Your task to perform on an android device: Open calendar and show me the fourth week of next month Image 0: 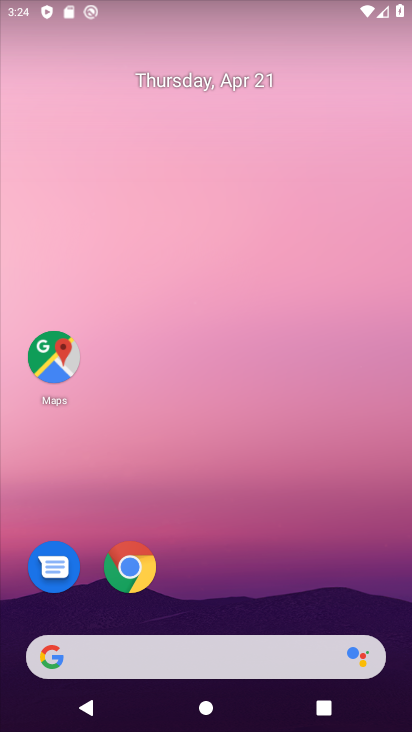
Step 0: drag from (215, 603) to (211, 1)
Your task to perform on an android device: Open calendar and show me the fourth week of next month Image 1: 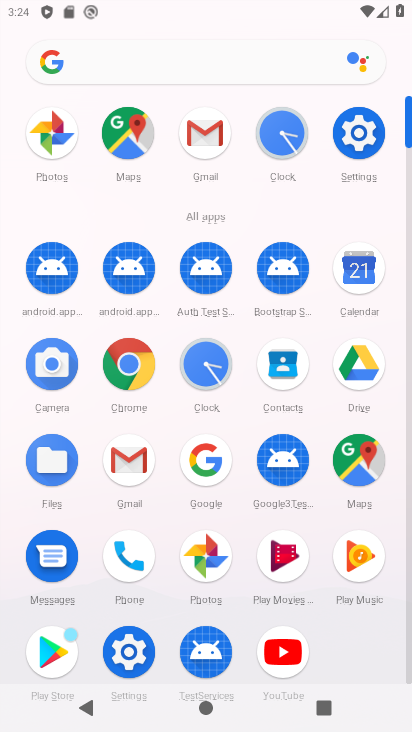
Step 1: click (360, 261)
Your task to perform on an android device: Open calendar and show me the fourth week of next month Image 2: 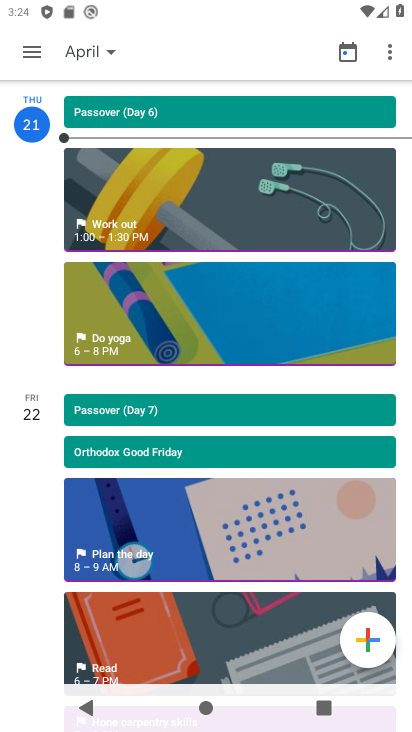
Step 2: click (27, 51)
Your task to perform on an android device: Open calendar and show me the fourth week of next month Image 3: 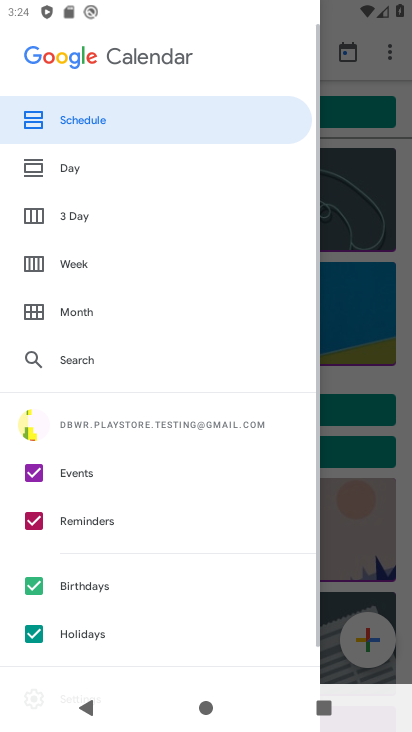
Step 3: click (53, 259)
Your task to perform on an android device: Open calendar and show me the fourth week of next month Image 4: 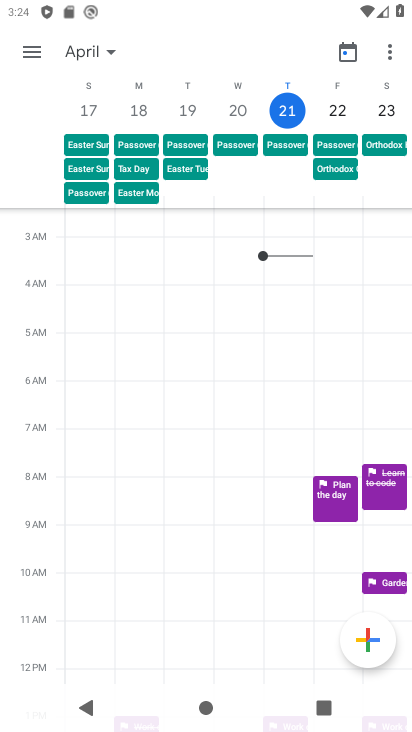
Step 4: drag from (372, 105) to (70, 102)
Your task to perform on an android device: Open calendar and show me the fourth week of next month Image 5: 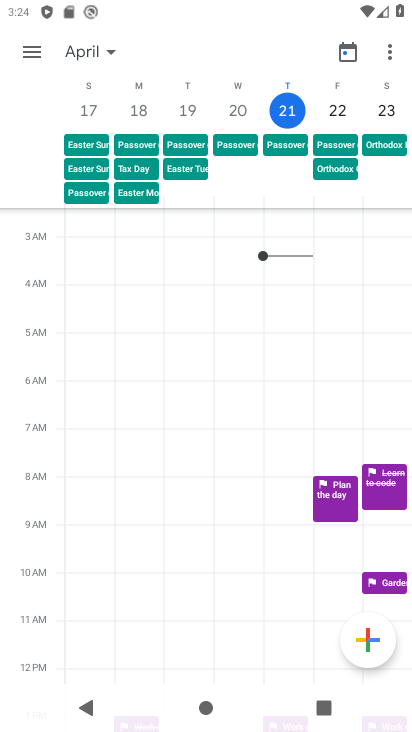
Step 5: drag from (381, 108) to (67, 111)
Your task to perform on an android device: Open calendar and show me the fourth week of next month Image 6: 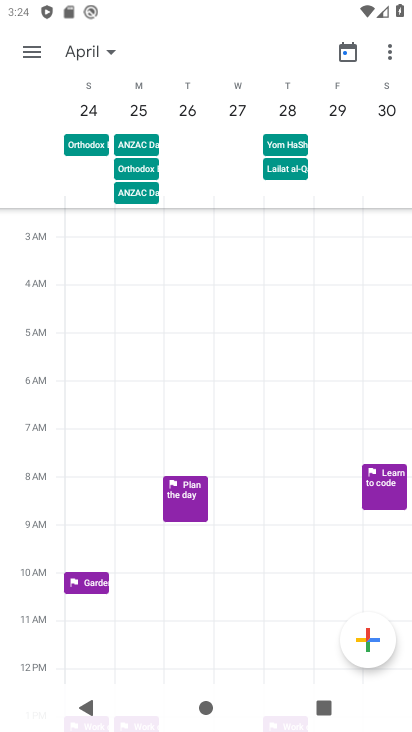
Step 6: drag from (386, 111) to (8, 111)
Your task to perform on an android device: Open calendar and show me the fourth week of next month Image 7: 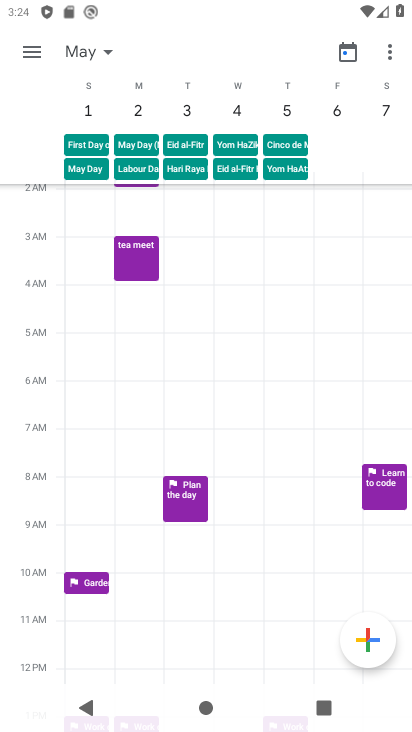
Step 7: drag from (385, 107) to (62, 116)
Your task to perform on an android device: Open calendar and show me the fourth week of next month Image 8: 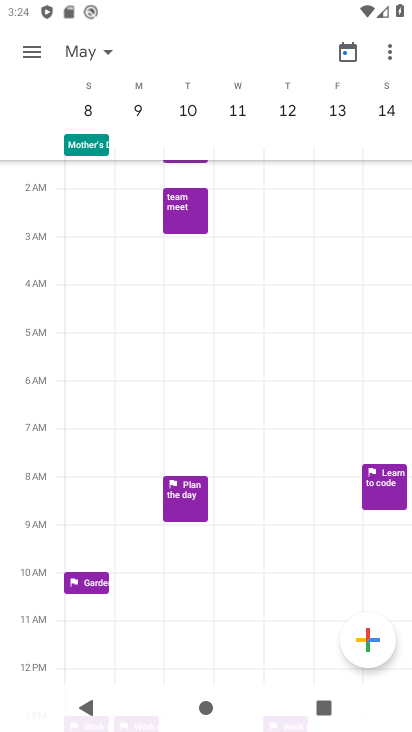
Step 8: drag from (389, 110) to (73, 126)
Your task to perform on an android device: Open calendar and show me the fourth week of next month Image 9: 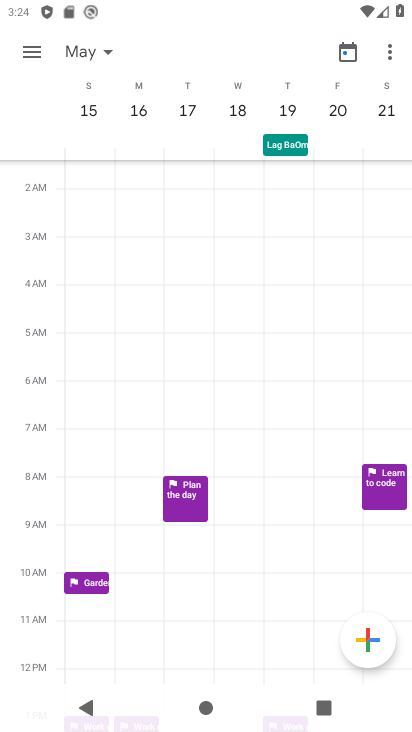
Step 9: drag from (387, 117) to (55, 129)
Your task to perform on an android device: Open calendar and show me the fourth week of next month Image 10: 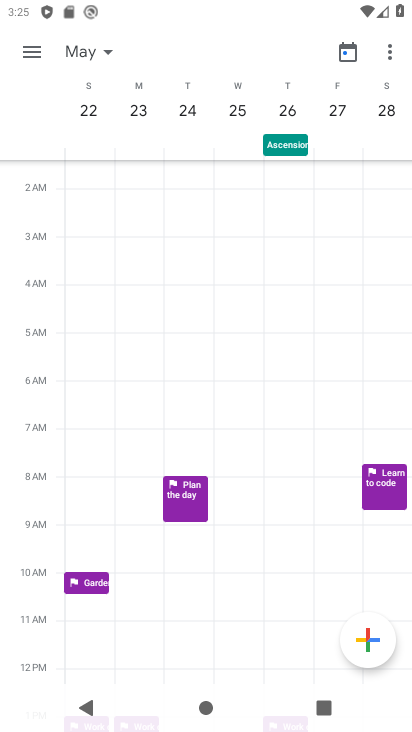
Step 10: click (85, 109)
Your task to perform on an android device: Open calendar and show me the fourth week of next month Image 11: 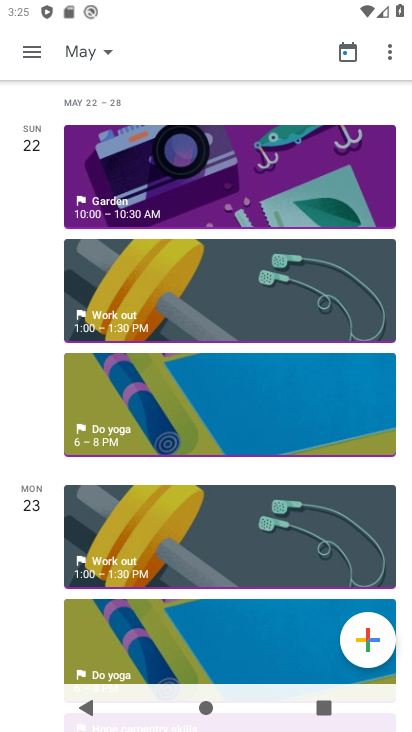
Step 11: task complete